Your task to perform on an android device: Show me the alarms in the clock app Image 0: 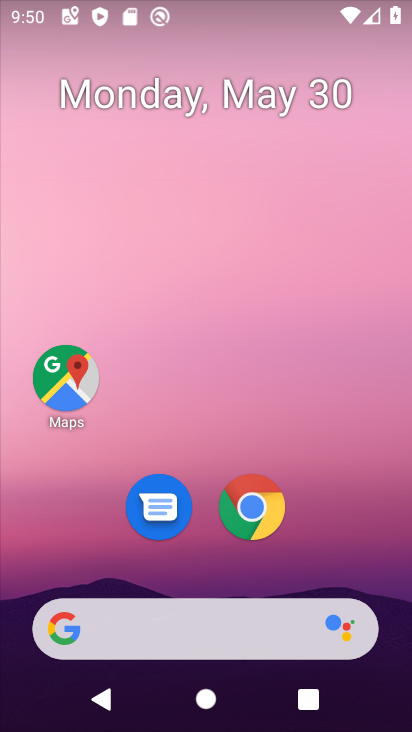
Step 0: drag from (264, 11) to (262, 429)
Your task to perform on an android device: Show me the alarms in the clock app Image 1: 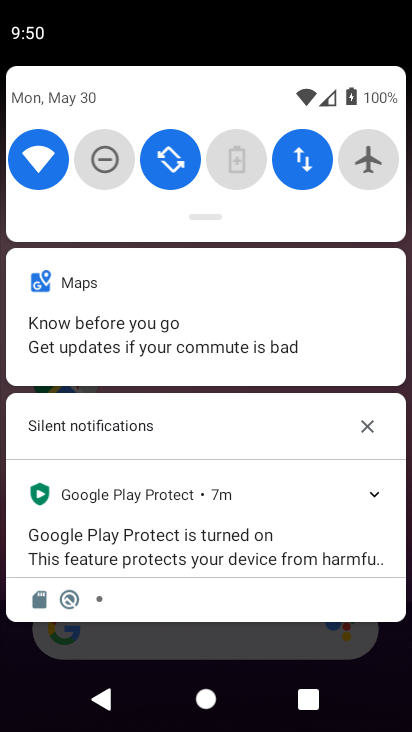
Step 1: drag from (207, 218) to (184, 457)
Your task to perform on an android device: Show me the alarms in the clock app Image 2: 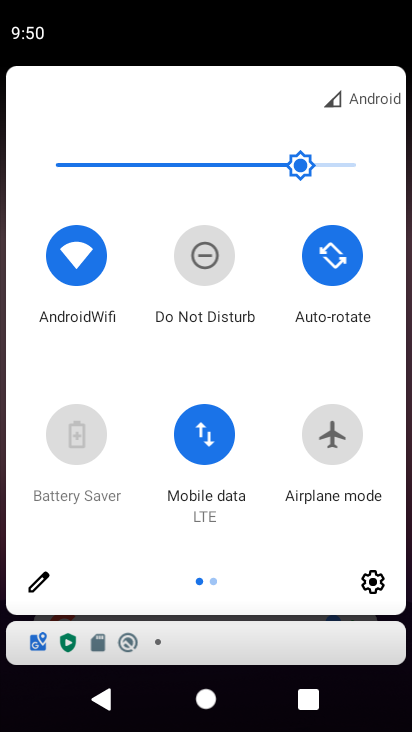
Step 2: click (43, 578)
Your task to perform on an android device: Show me the alarms in the clock app Image 3: 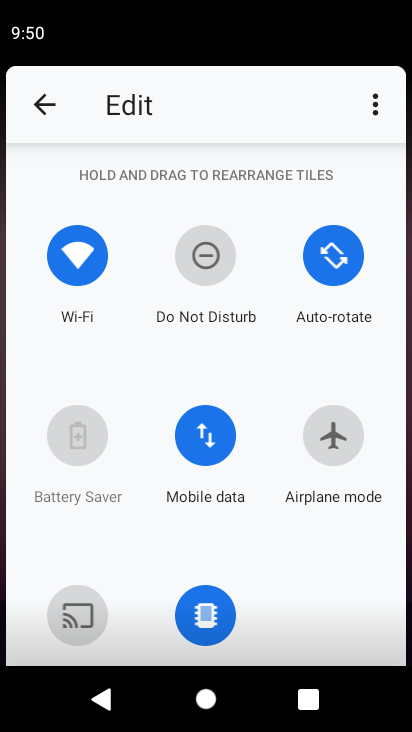
Step 3: task complete